Your task to perform on an android device: toggle javascript in the chrome app Image 0: 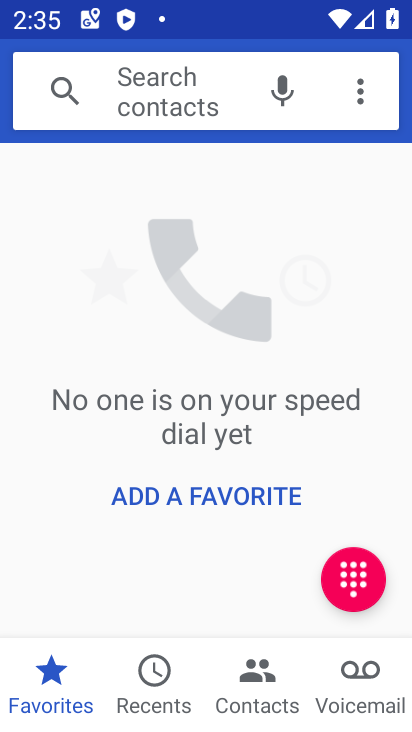
Step 0: press home button
Your task to perform on an android device: toggle javascript in the chrome app Image 1: 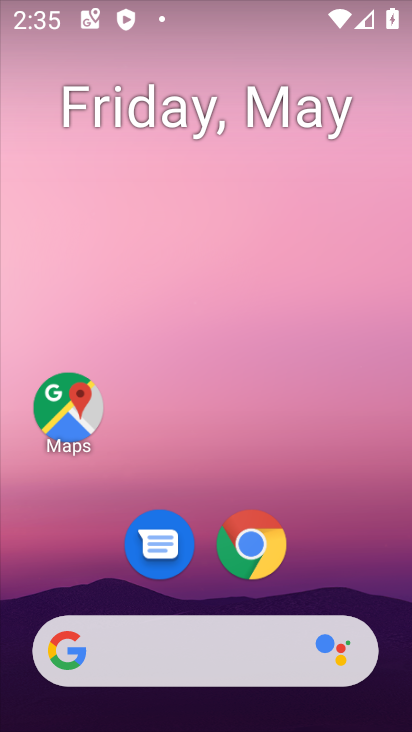
Step 1: click (264, 543)
Your task to perform on an android device: toggle javascript in the chrome app Image 2: 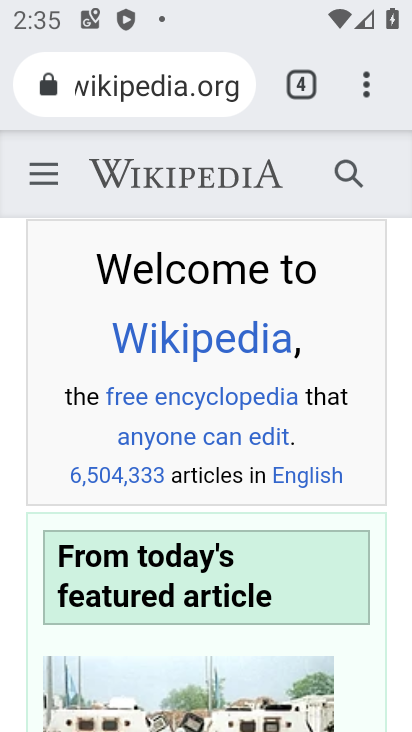
Step 2: click (362, 80)
Your task to perform on an android device: toggle javascript in the chrome app Image 3: 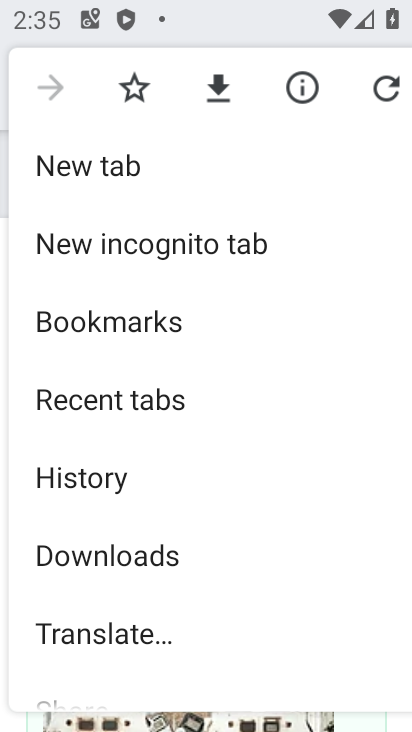
Step 3: drag from (187, 622) to (203, 377)
Your task to perform on an android device: toggle javascript in the chrome app Image 4: 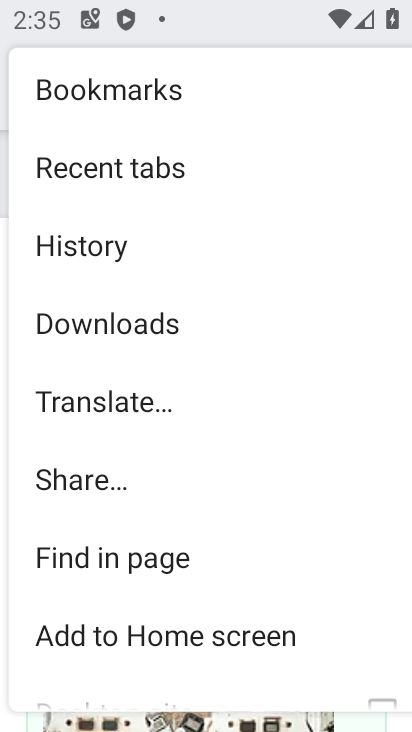
Step 4: drag from (216, 612) to (218, 346)
Your task to perform on an android device: toggle javascript in the chrome app Image 5: 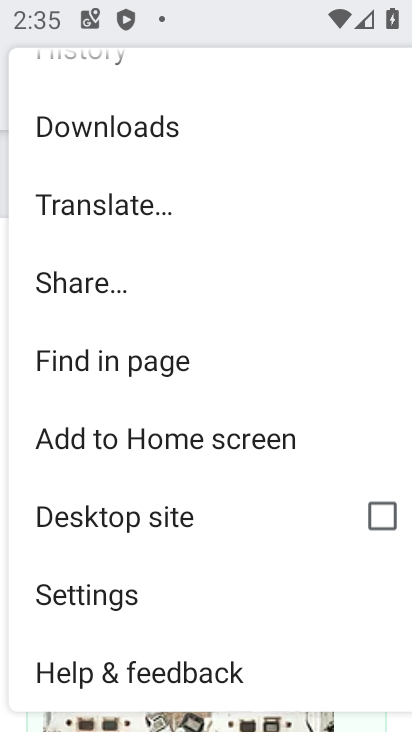
Step 5: click (167, 572)
Your task to perform on an android device: toggle javascript in the chrome app Image 6: 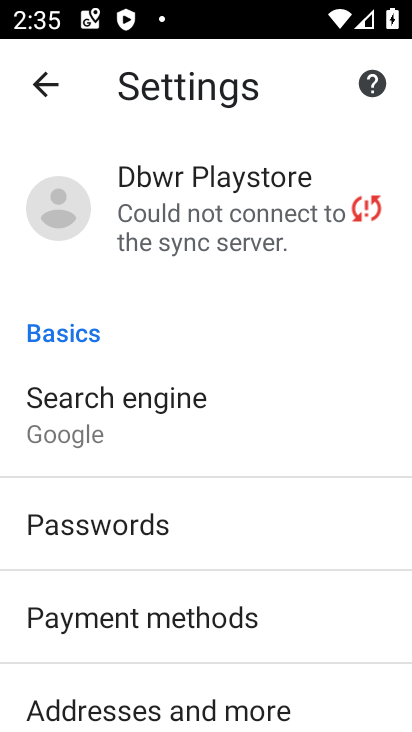
Step 6: drag from (221, 626) to (229, 406)
Your task to perform on an android device: toggle javascript in the chrome app Image 7: 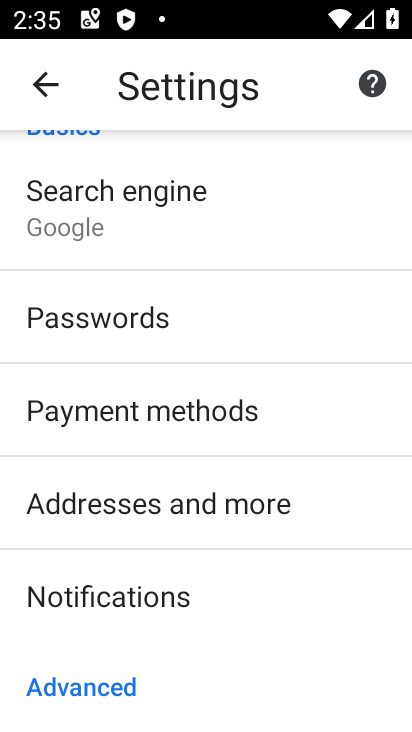
Step 7: drag from (225, 611) to (231, 300)
Your task to perform on an android device: toggle javascript in the chrome app Image 8: 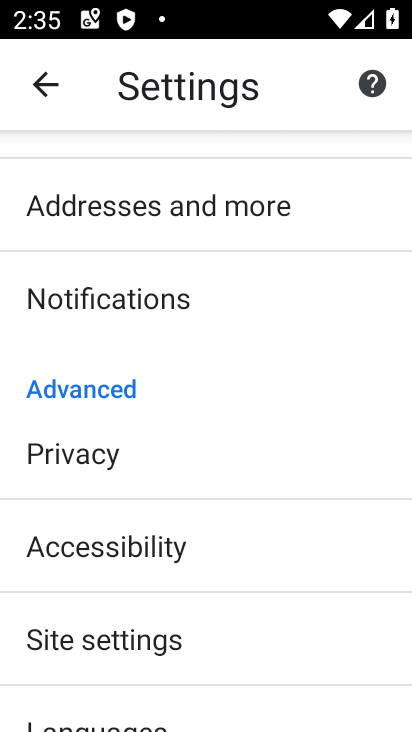
Step 8: drag from (217, 624) to (224, 413)
Your task to perform on an android device: toggle javascript in the chrome app Image 9: 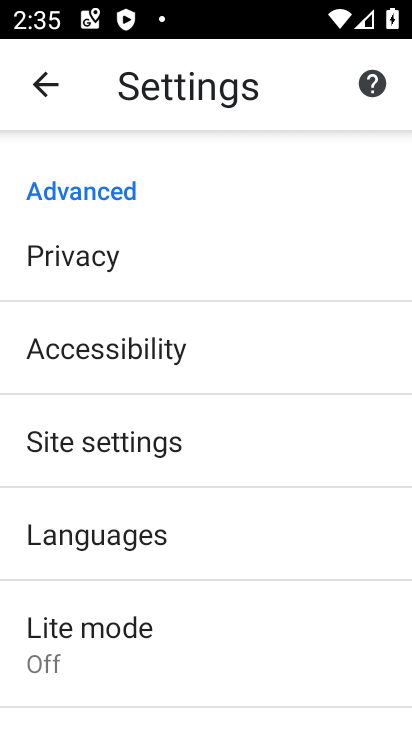
Step 9: click (168, 457)
Your task to perform on an android device: toggle javascript in the chrome app Image 10: 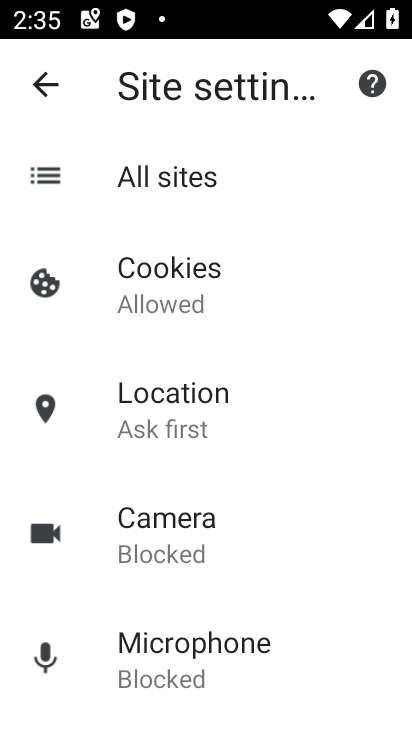
Step 10: drag from (218, 638) to (239, 424)
Your task to perform on an android device: toggle javascript in the chrome app Image 11: 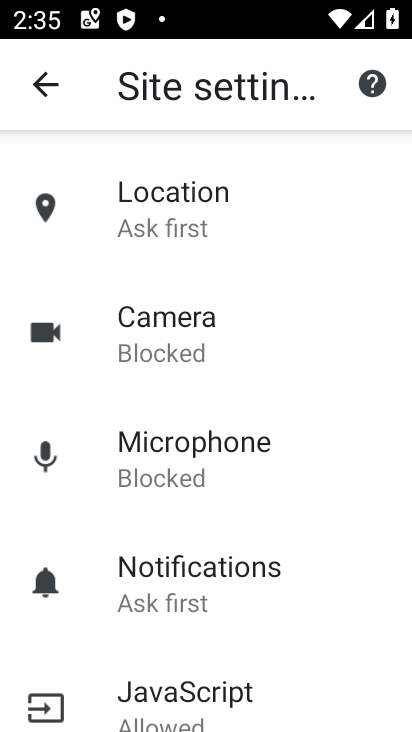
Step 11: click (225, 698)
Your task to perform on an android device: toggle javascript in the chrome app Image 12: 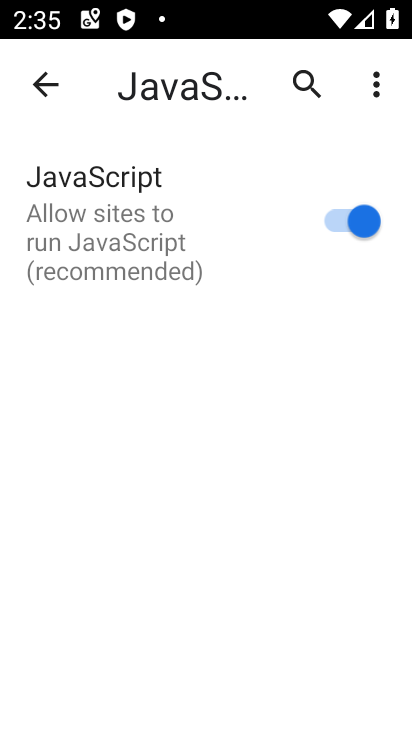
Step 12: click (333, 227)
Your task to perform on an android device: toggle javascript in the chrome app Image 13: 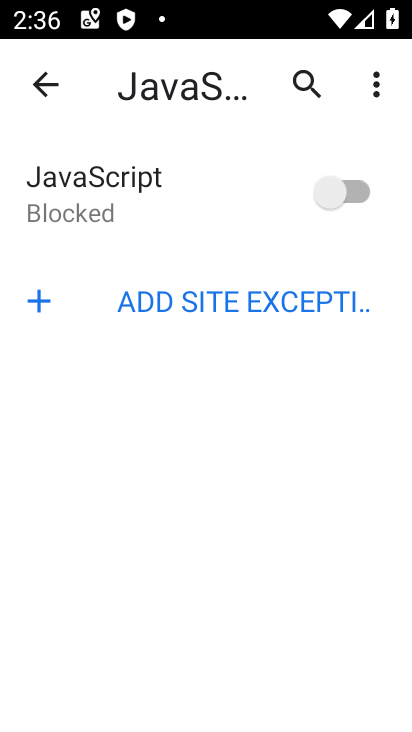
Step 13: task complete